Your task to perform on an android device: check android version Image 0: 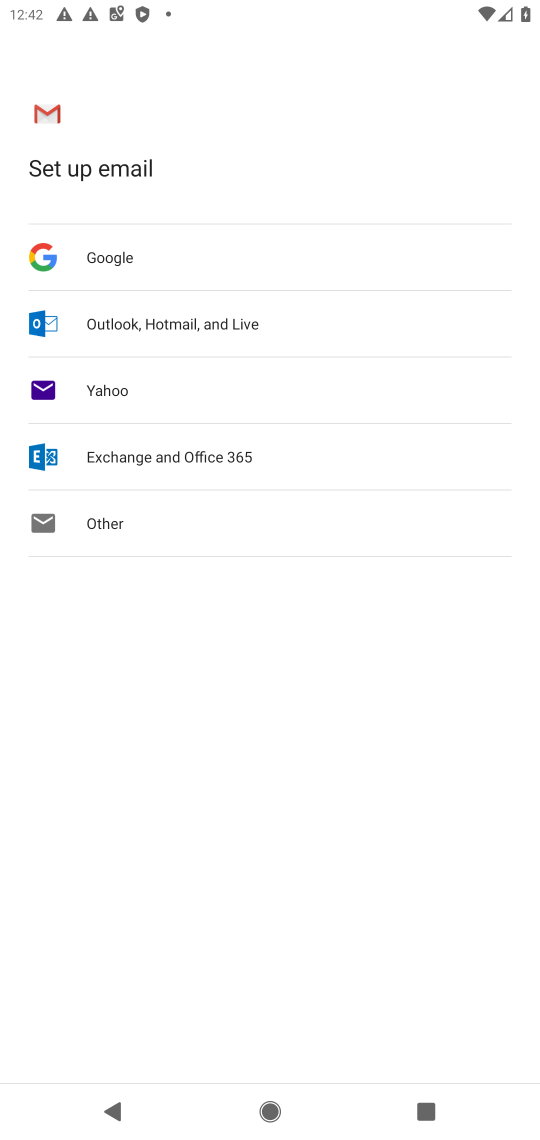
Step 0: press home button
Your task to perform on an android device: check android version Image 1: 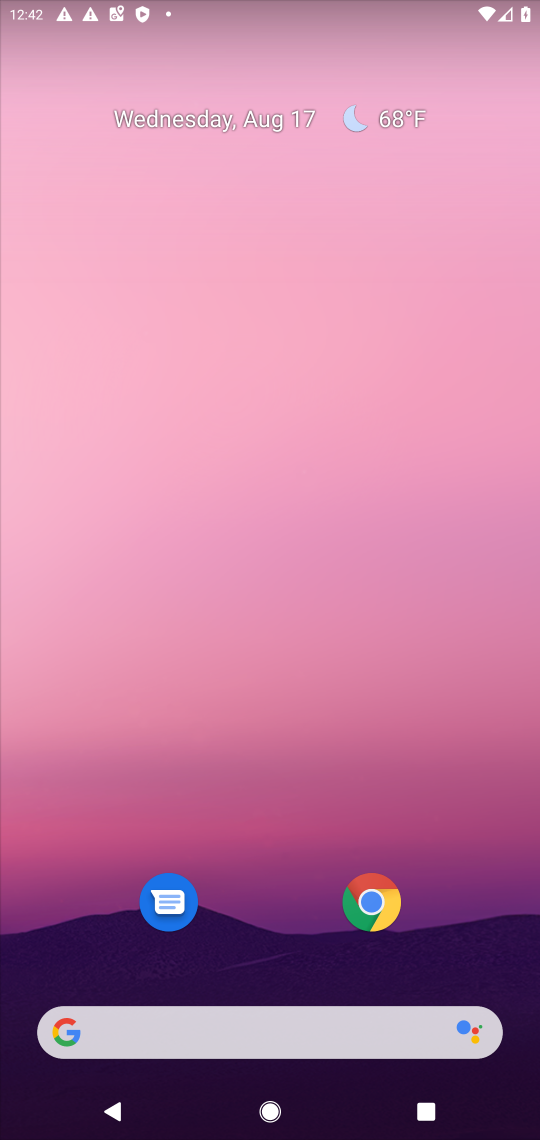
Step 1: drag from (246, 652) to (329, 0)
Your task to perform on an android device: check android version Image 2: 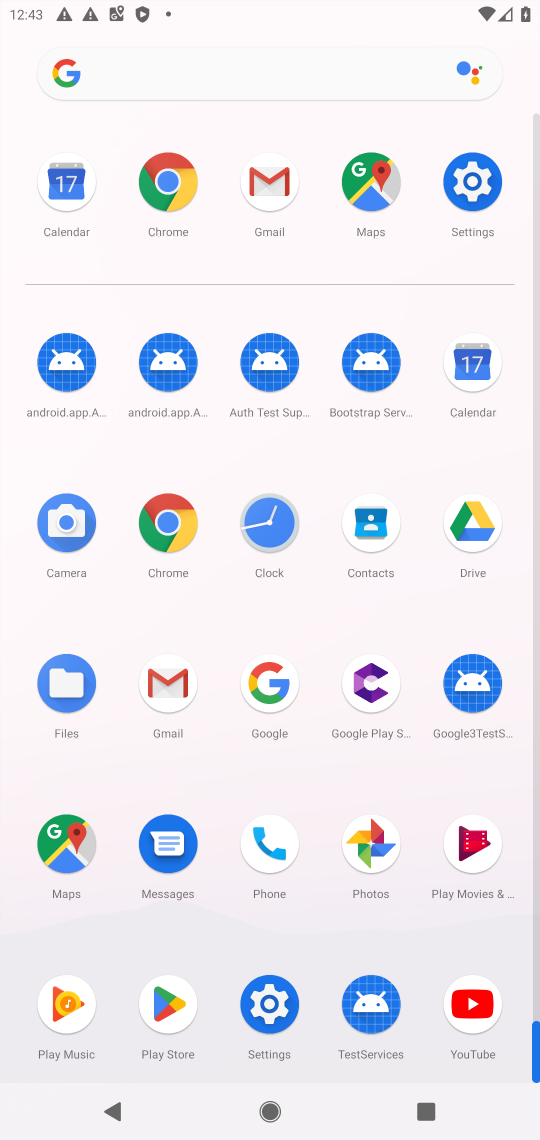
Step 2: click (262, 992)
Your task to perform on an android device: check android version Image 3: 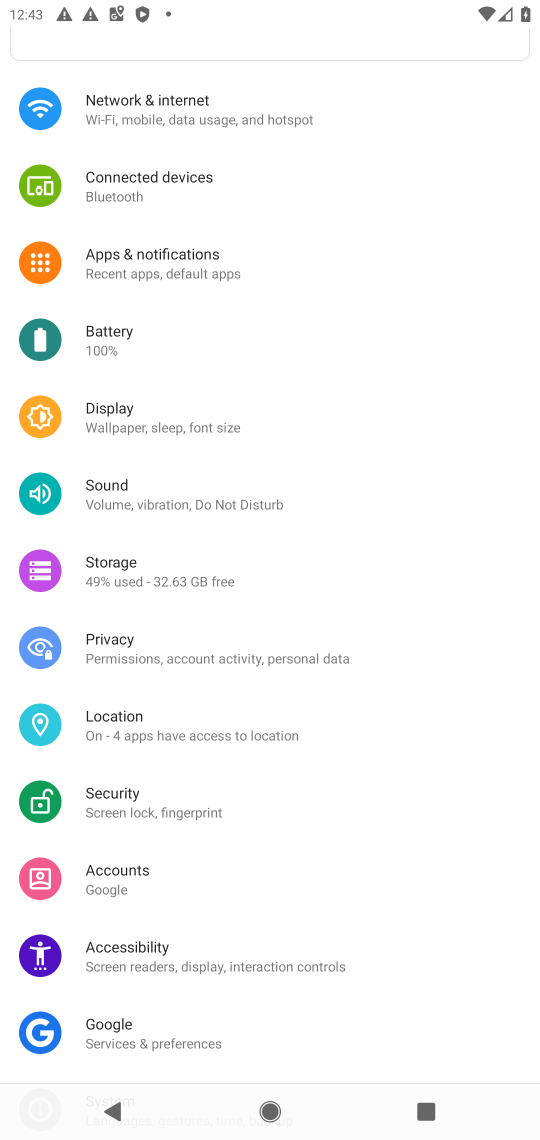
Step 3: drag from (205, 1045) to (242, 345)
Your task to perform on an android device: check android version Image 4: 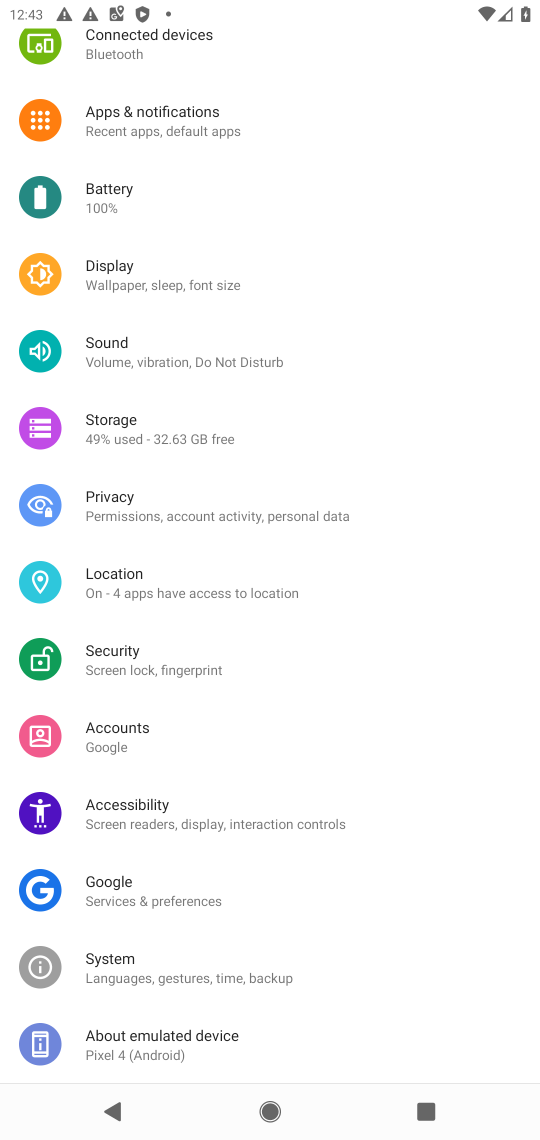
Step 4: click (151, 1037)
Your task to perform on an android device: check android version Image 5: 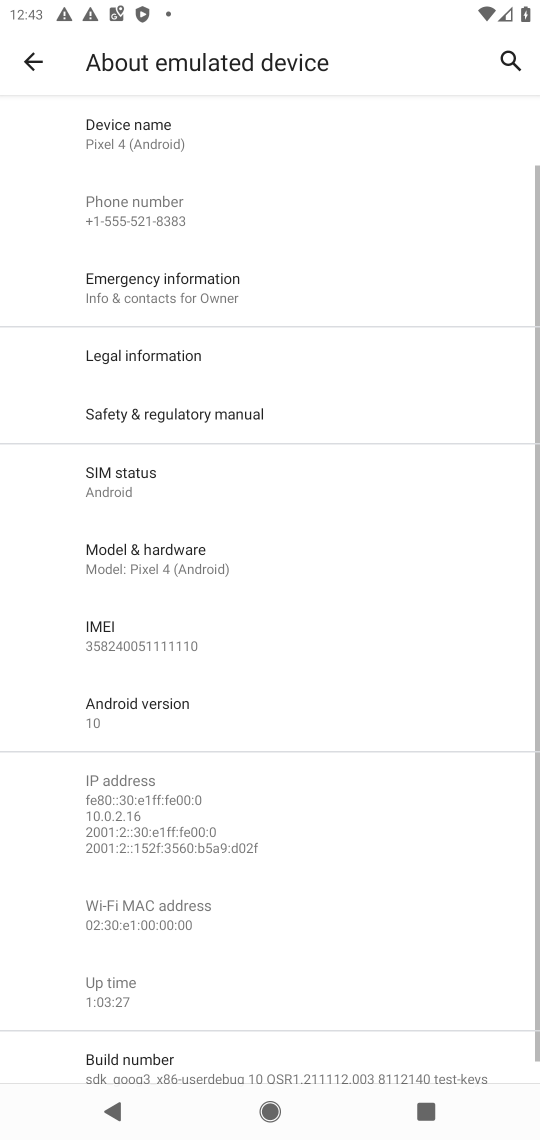
Step 5: click (161, 709)
Your task to perform on an android device: check android version Image 6: 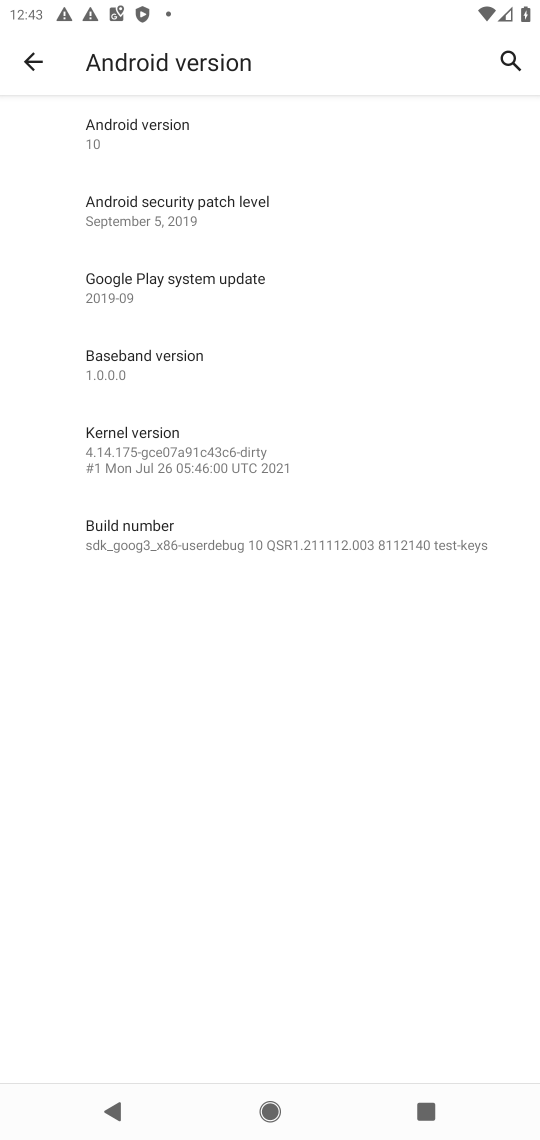
Step 6: task complete